Your task to perform on an android device: Go to wifi settings Image 0: 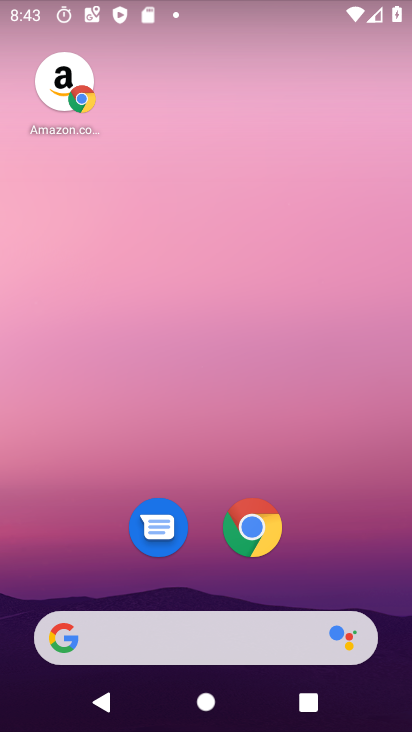
Step 0: drag from (366, 588) to (407, 57)
Your task to perform on an android device: Go to wifi settings Image 1: 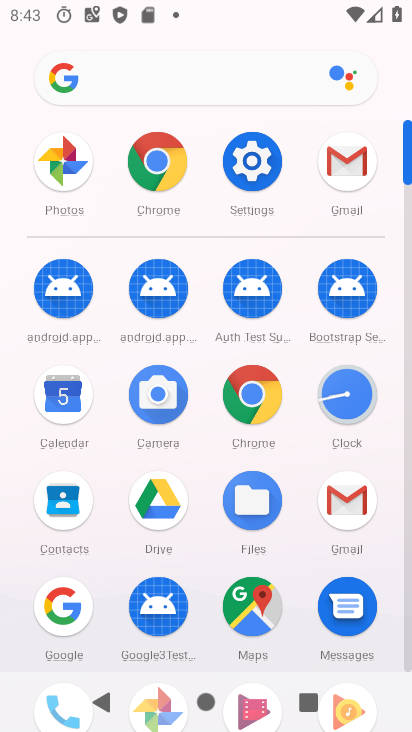
Step 1: click (243, 153)
Your task to perform on an android device: Go to wifi settings Image 2: 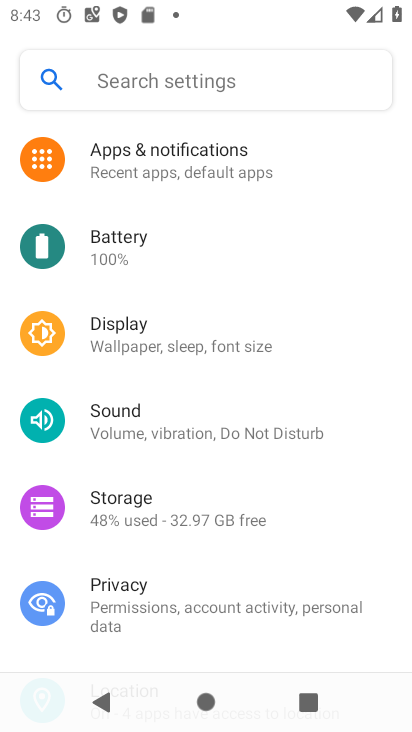
Step 2: drag from (224, 167) to (307, 621)
Your task to perform on an android device: Go to wifi settings Image 3: 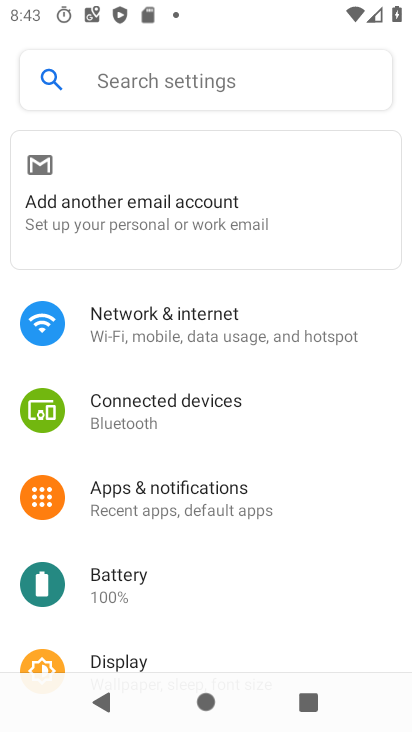
Step 3: click (142, 344)
Your task to perform on an android device: Go to wifi settings Image 4: 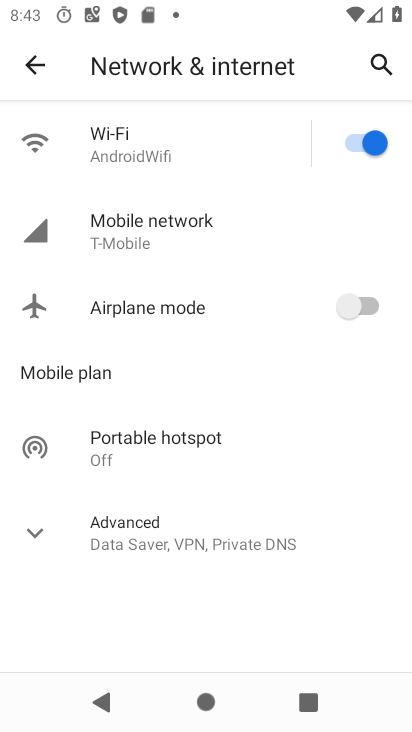
Step 4: click (191, 155)
Your task to perform on an android device: Go to wifi settings Image 5: 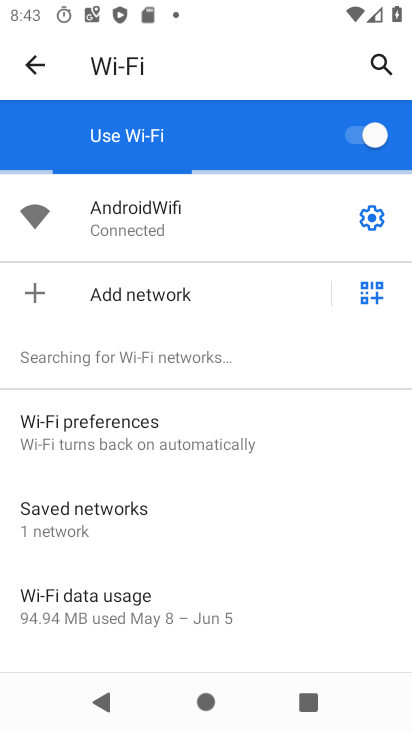
Step 5: task complete